Your task to perform on an android device: Go to eBay Image 0: 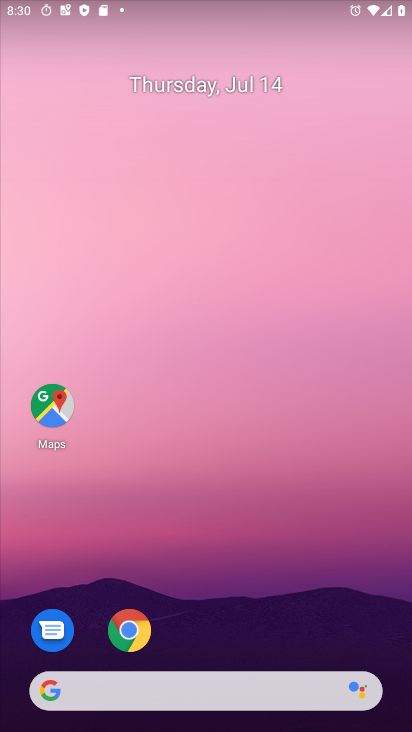
Step 0: click (129, 628)
Your task to perform on an android device: Go to eBay Image 1: 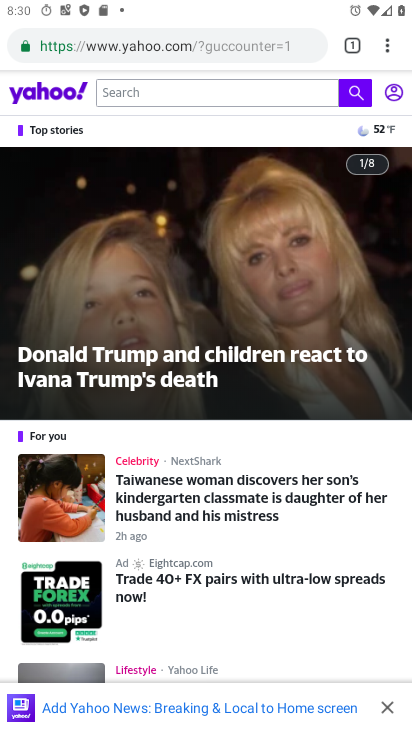
Step 1: click (387, 54)
Your task to perform on an android device: Go to eBay Image 2: 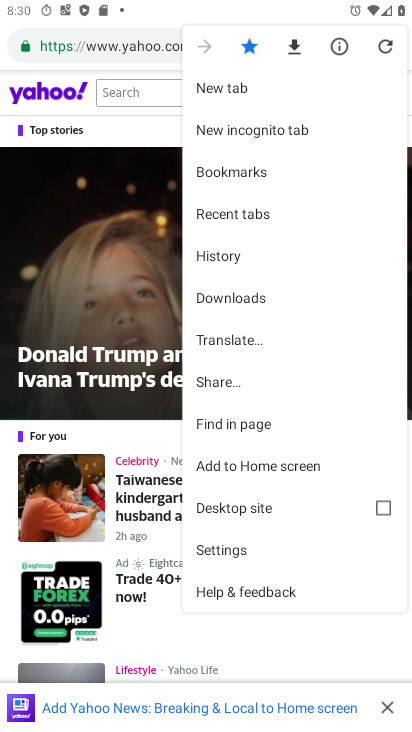
Step 2: click (229, 85)
Your task to perform on an android device: Go to eBay Image 3: 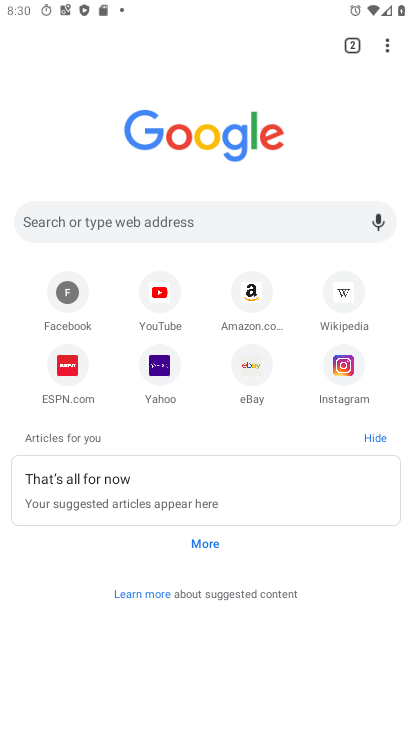
Step 3: click (247, 363)
Your task to perform on an android device: Go to eBay Image 4: 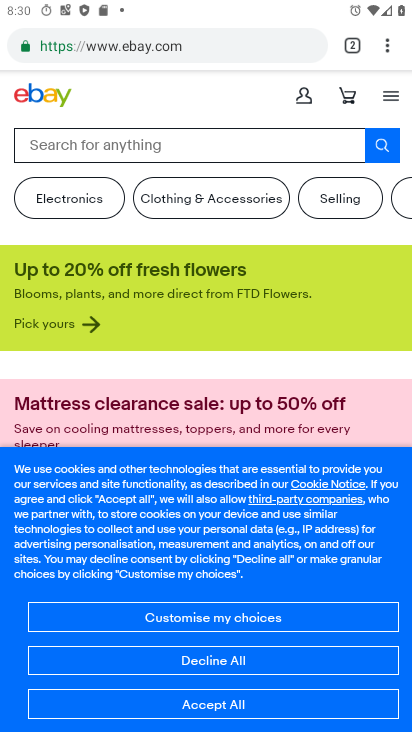
Step 4: task complete